Your task to perform on an android device: remove spam from my inbox in the gmail app Image 0: 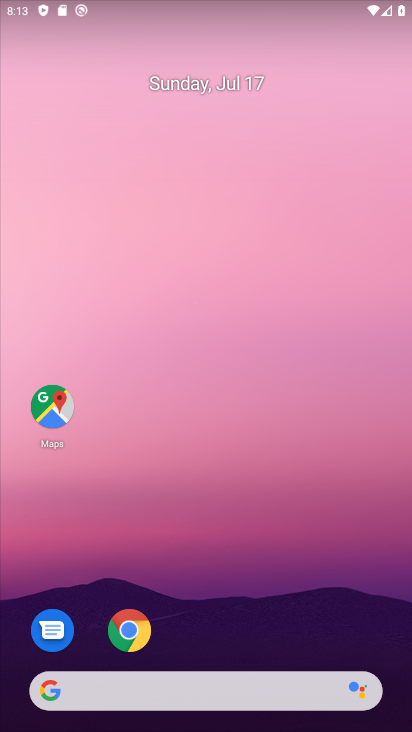
Step 0: drag from (348, 622) to (371, 144)
Your task to perform on an android device: remove spam from my inbox in the gmail app Image 1: 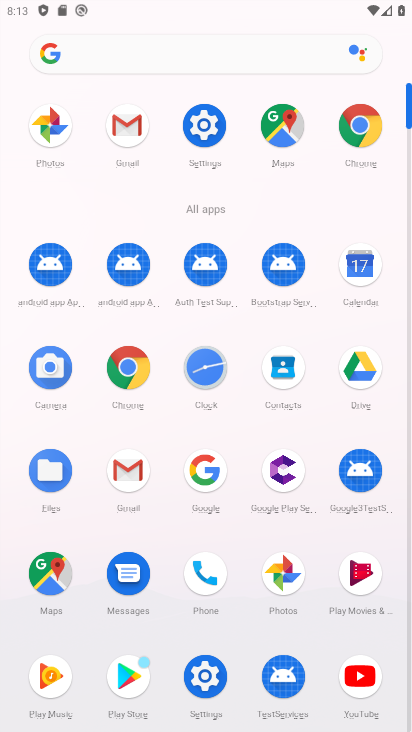
Step 1: click (130, 473)
Your task to perform on an android device: remove spam from my inbox in the gmail app Image 2: 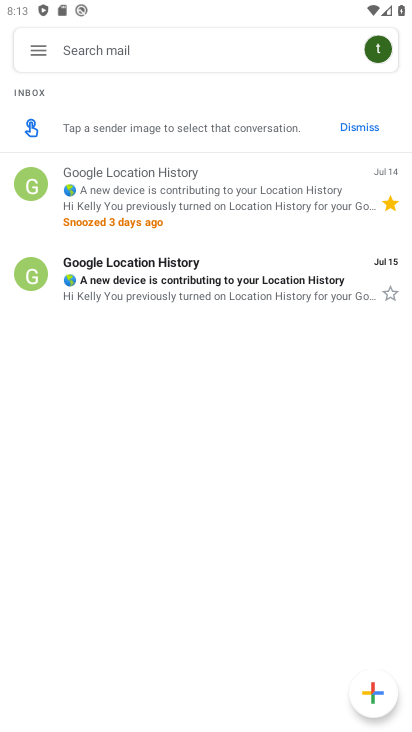
Step 2: click (38, 49)
Your task to perform on an android device: remove spam from my inbox in the gmail app Image 3: 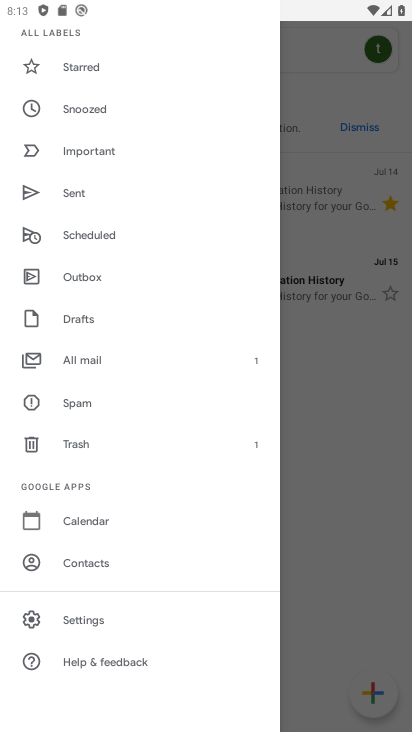
Step 3: click (88, 410)
Your task to perform on an android device: remove spam from my inbox in the gmail app Image 4: 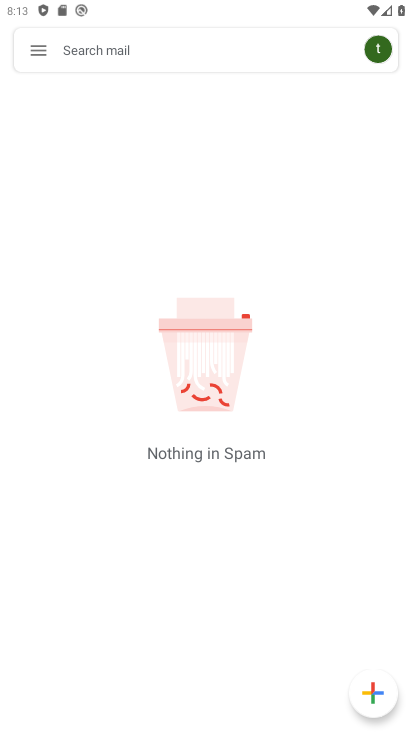
Step 4: task complete